Your task to perform on an android device: Show me popular games on the Play Store Image 0: 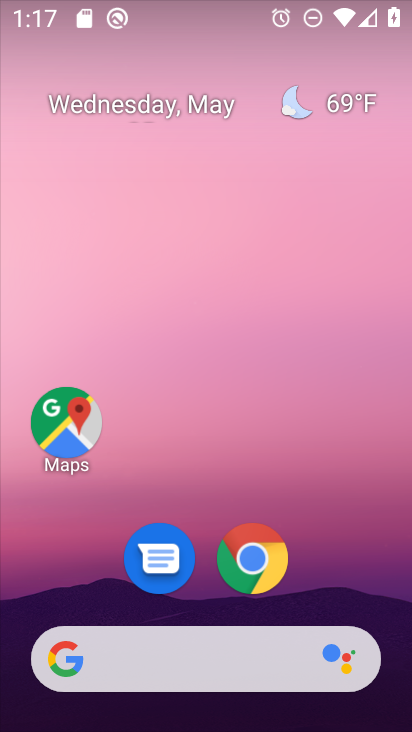
Step 0: drag from (385, 629) to (334, 76)
Your task to perform on an android device: Show me popular games on the Play Store Image 1: 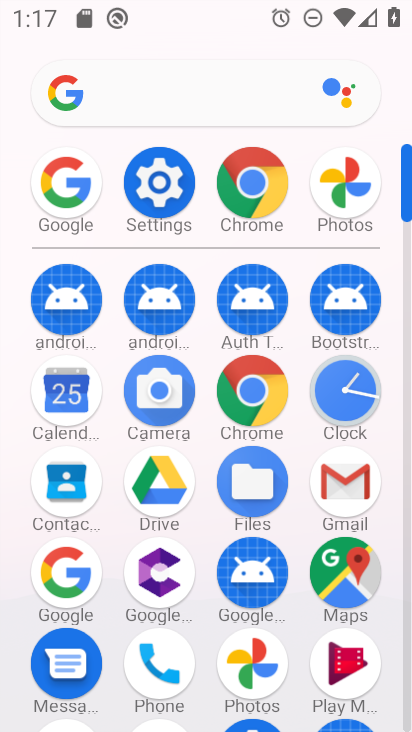
Step 1: drag from (199, 686) to (199, 202)
Your task to perform on an android device: Show me popular games on the Play Store Image 2: 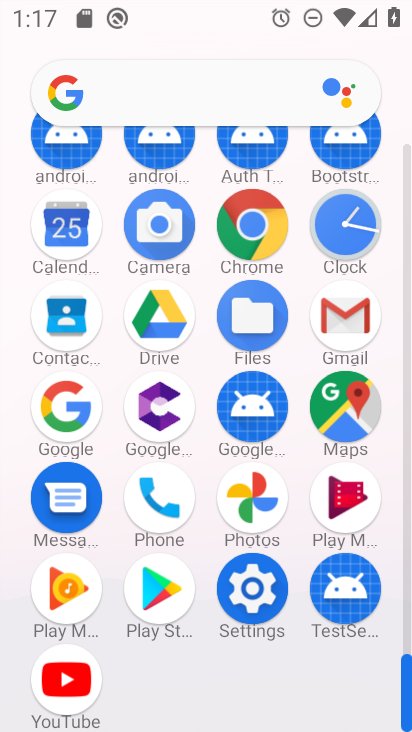
Step 2: click (160, 595)
Your task to perform on an android device: Show me popular games on the Play Store Image 3: 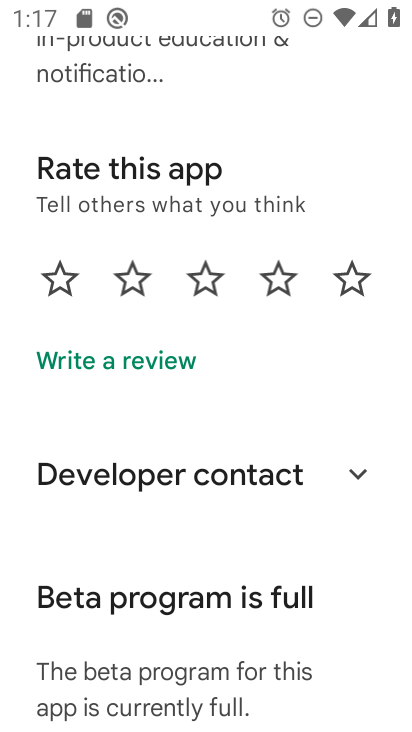
Step 3: press back button
Your task to perform on an android device: Show me popular games on the Play Store Image 4: 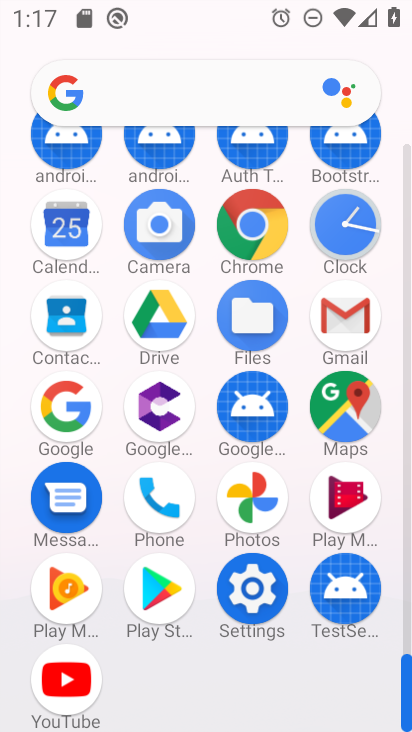
Step 4: click (162, 587)
Your task to perform on an android device: Show me popular games on the Play Store Image 5: 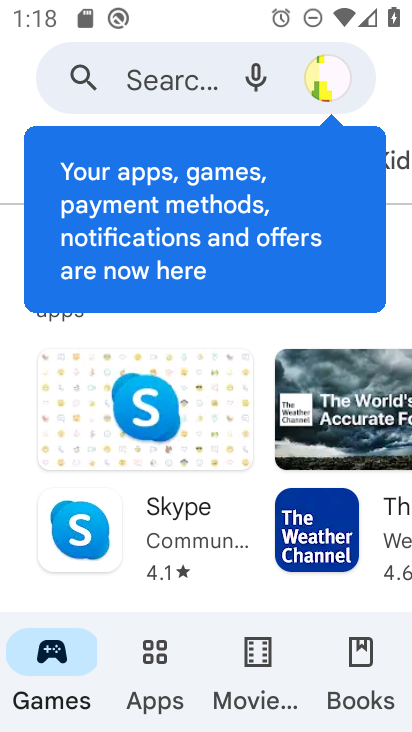
Step 5: task complete